Your task to perform on an android device: turn vacation reply on in the gmail app Image 0: 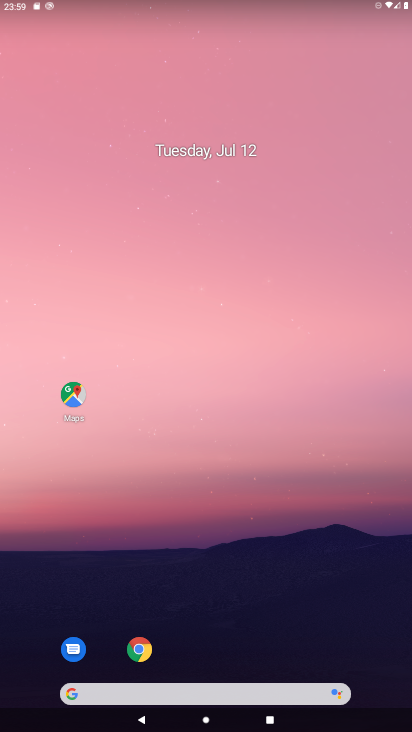
Step 0: drag from (385, 683) to (358, 90)
Your task to perform on an android device: turn vacation reply on in the gmail app Image 1: 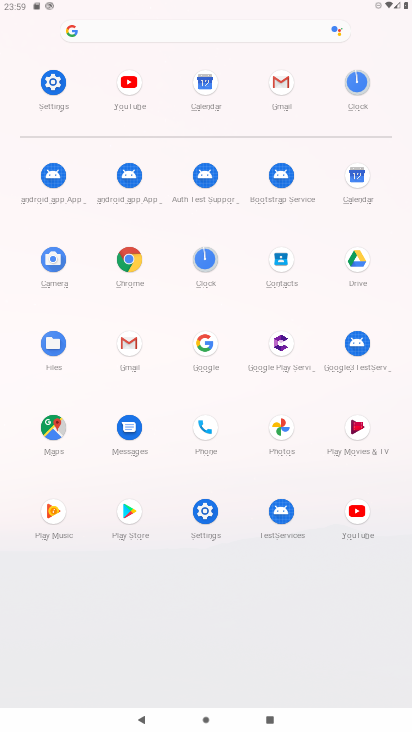
Step 1: click (129, 346)
Your task to perform on an android device: turn vacation reply on in the gmail app Image 2: 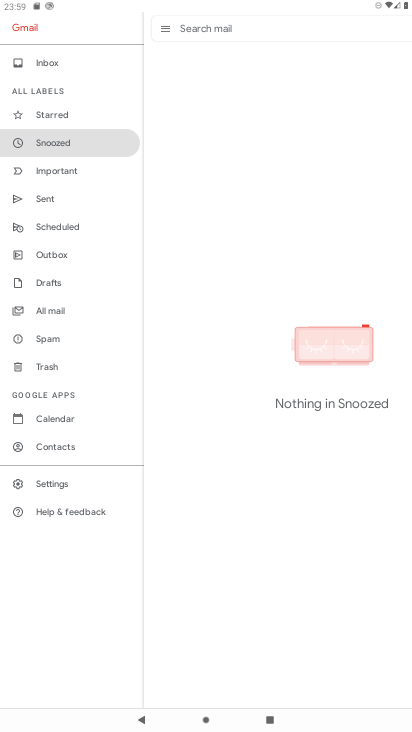
Step 2: click (54, 482)
Your task to perform on an android device: turn vacation reply on in the gmail app Image 3: 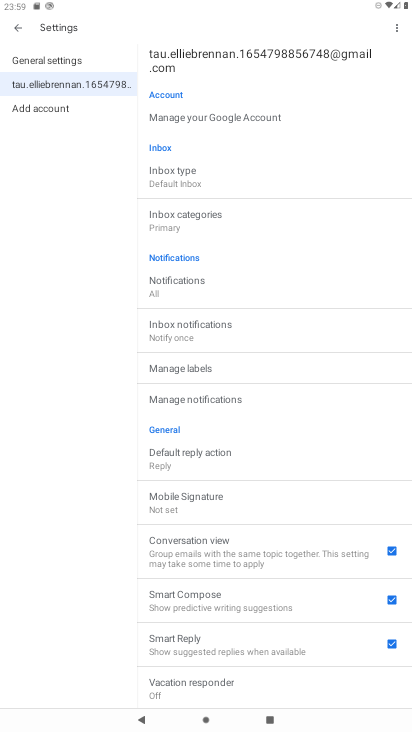
Step 3: click (221, 680)
Your task to perform on an android device: turn vacation reply on in the gmail app Image 4: 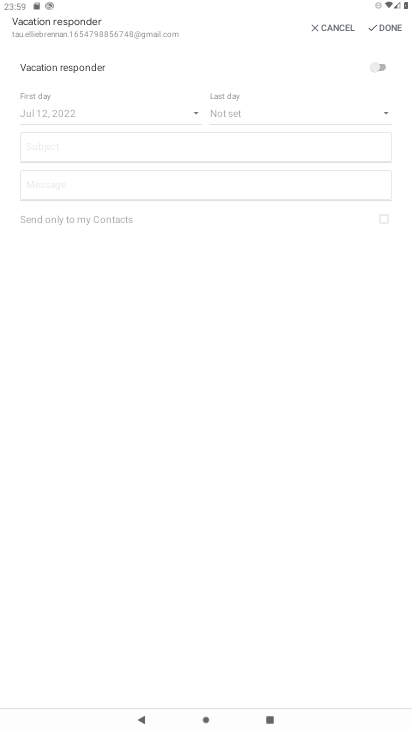
Step 4: click (380, 69)
Your task to perform on an android device: turn vacation reply on in the gmail app Image 5: 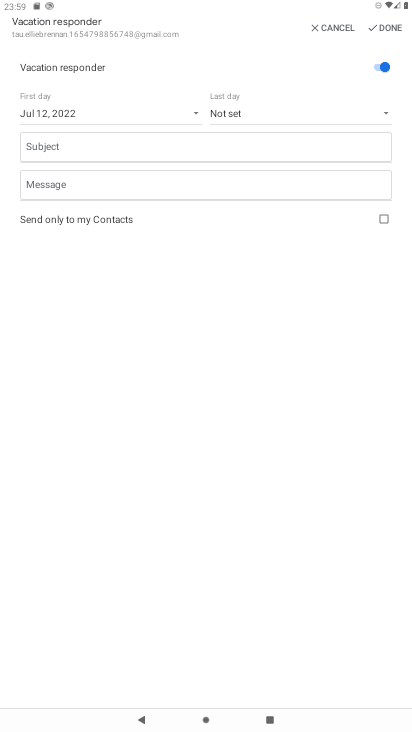
Step 5: click (385, 28)
Your task to perform on an android device: turn vacation reply on in the gmail app Image 6: 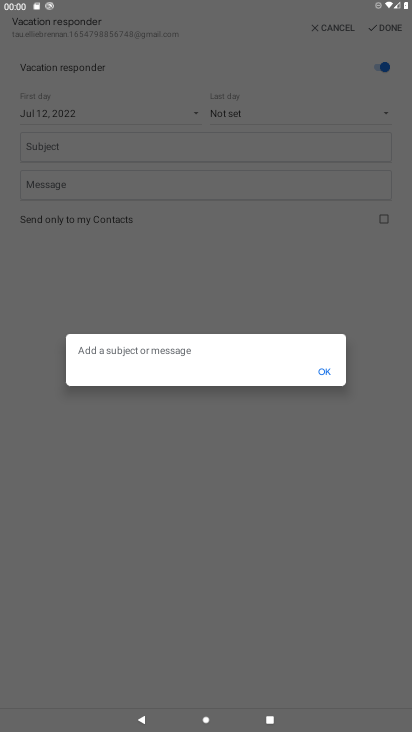
Step 6: click (330, 373)
Your task to perform on an android device: turn vacation reply on in the gmail app Image 7: 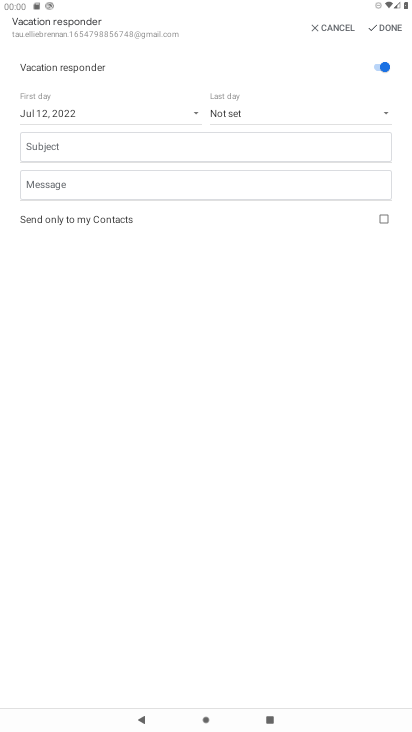
Step 7: task complete